Your task to perform on an android device: set the timer Image 0: 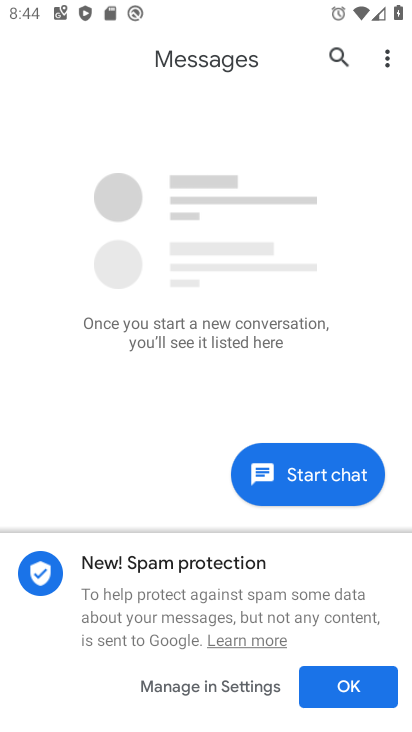
Step 0: press home button
Your task to perform on an android device: set the timer Image 1: 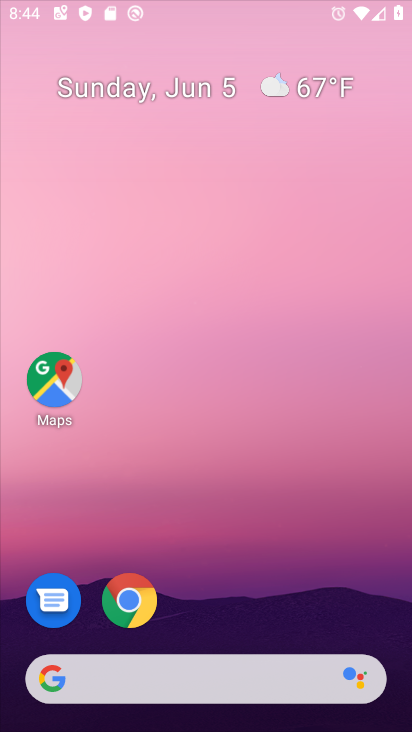
Step 1: drag from (393, 634) to (266, 128)
Your task to perform on an android device: set the timer Image 2: 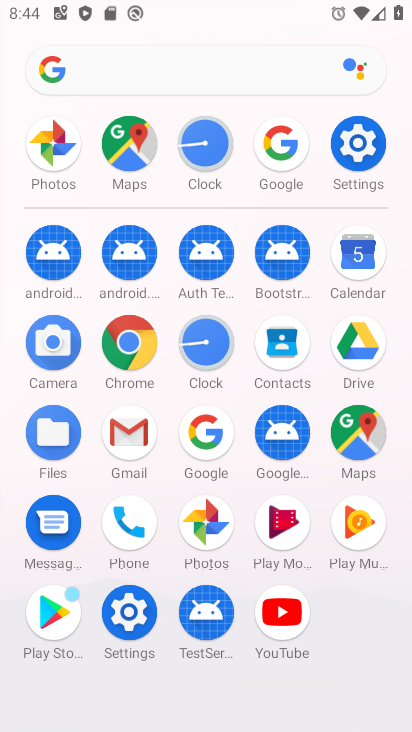
Step 2: click (218, 346)
Your task to perform on an android device: set the timer Image 3: 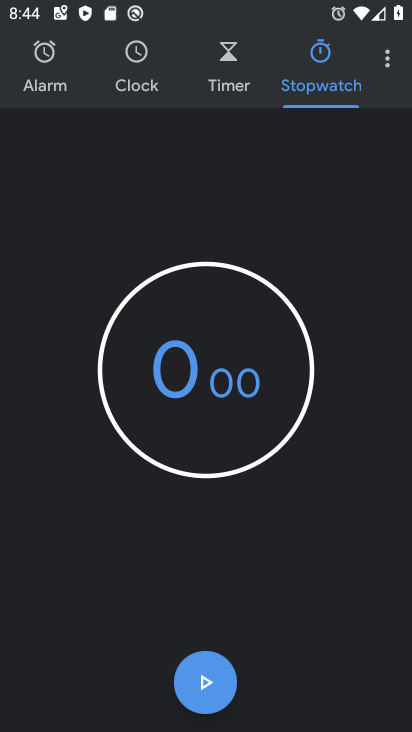
Step 3: click (390, 57)
Your task to perform on an android device: set the timer Image 4: 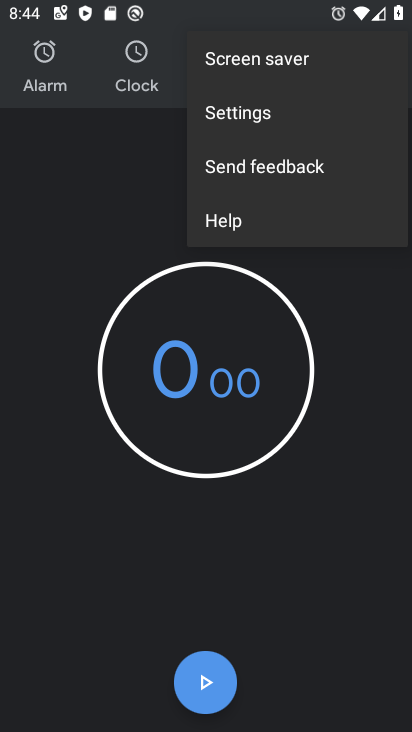
Step 4: click (259, 126)
Your task to perform on an android device: set the timer Image 5: 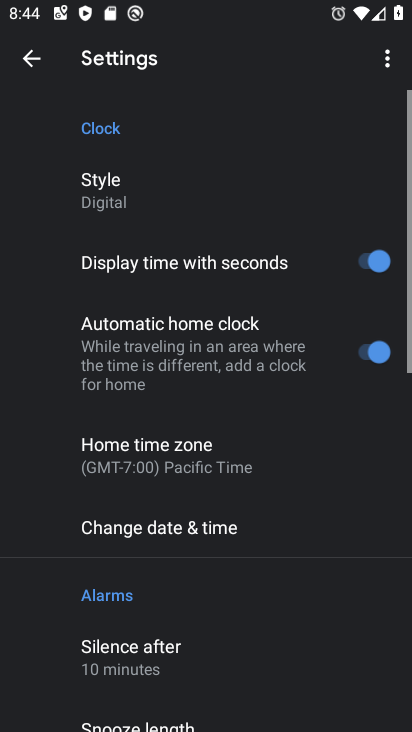
Step 5: click (159, 441)
Your task to perform on an android device: set the timer Image 6: 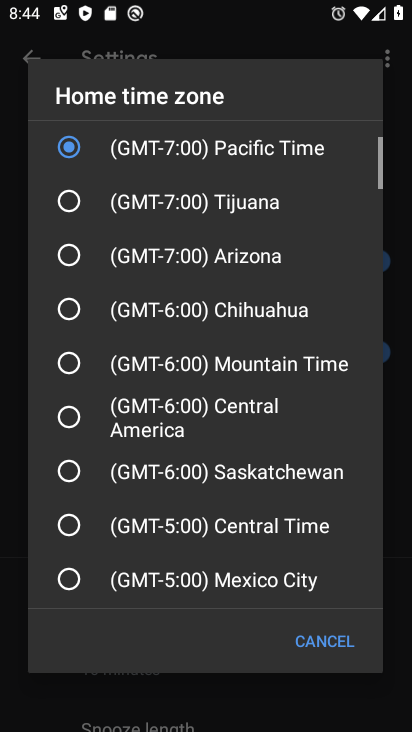
Step 6: click (110, 402)
Your task to perform on an android device: set the timer Image 7: 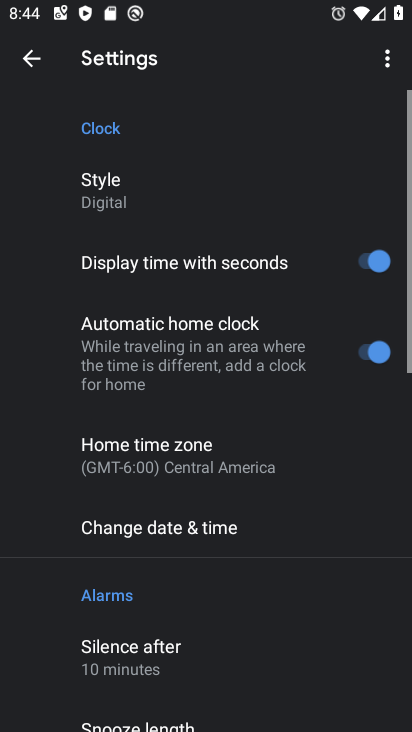
Step 7: task complete